Your task to perform on an android device: install app "Firefox Browser" Image 0: 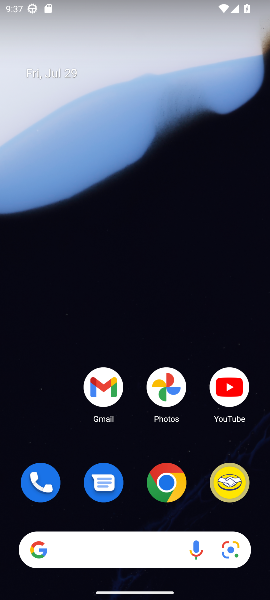
Step 0: drag from (139, 594) to (140, 41)
Your task to perform on an android device: install app "Firefox Browser" Image 1: 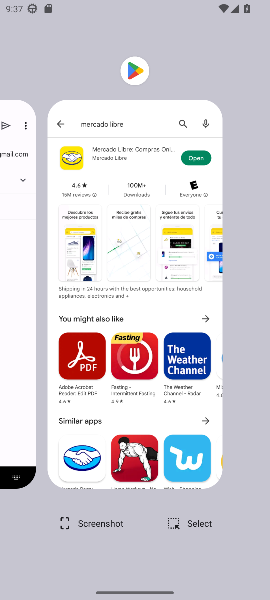
Step 1: click (114, 225)
Your task to perform on an android device: install app "Firefox Browser" Image 2: 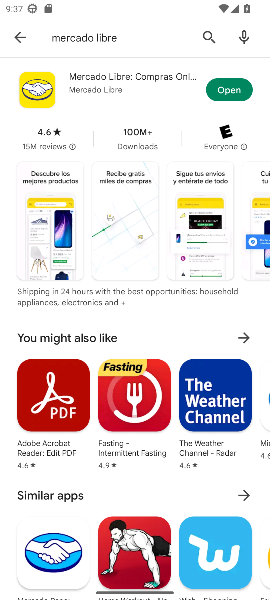
Step 2: click (202, 36)
Your task to perform on an android device: install app "Firefox Browser" Image 3: 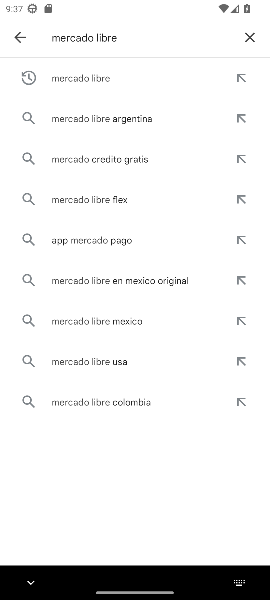
Step 3: click (248, 34)
Your task to perform on an android device: install app "Firefox Browser" Image 4: 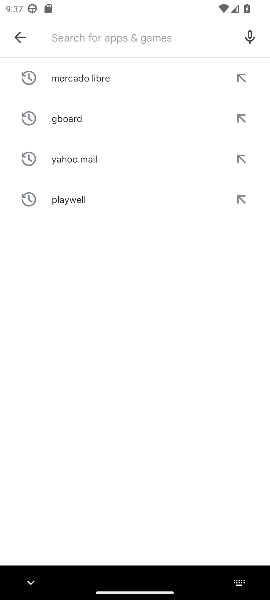
Step 4: type "Firefox Browser"
Your task to perform on an android device: install app "Firefox Browser" Image 5: 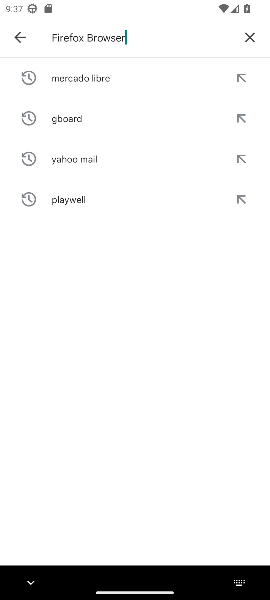
Step 5: type ""
Your task to perform on an android device: install app "Firefox Browser" Image 6: 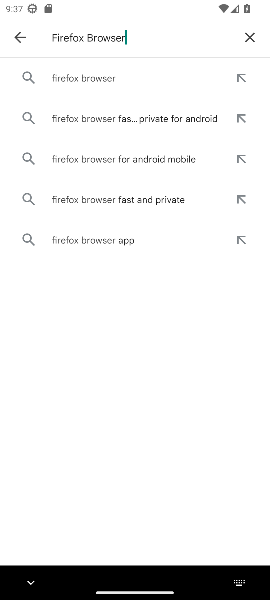
Step 6: click (82, 77)
Your task to perform on an android device: install app "Firefox Browser" Image 7: 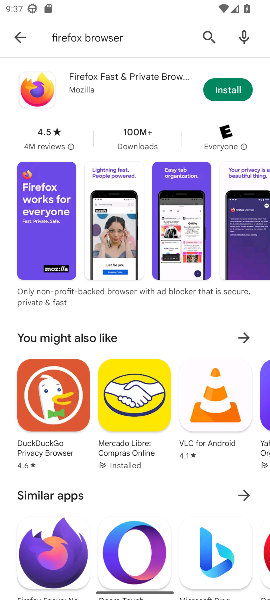
Step 7: click (235, 88)
Your task to perform on an android device: install app "Firefox Browser" Image 8: 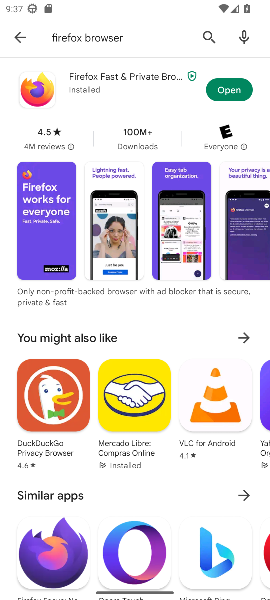
Step 8: task complete